Your task to perform on an android device: Do I have any events today? Image 0: 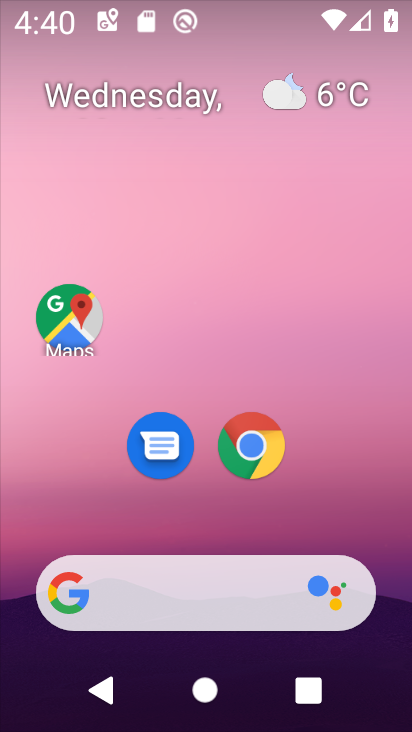
Step 0: drag from (209, 479) to (253, 10)
Your task to perform on an android device: Do I have any events today? Image 1: 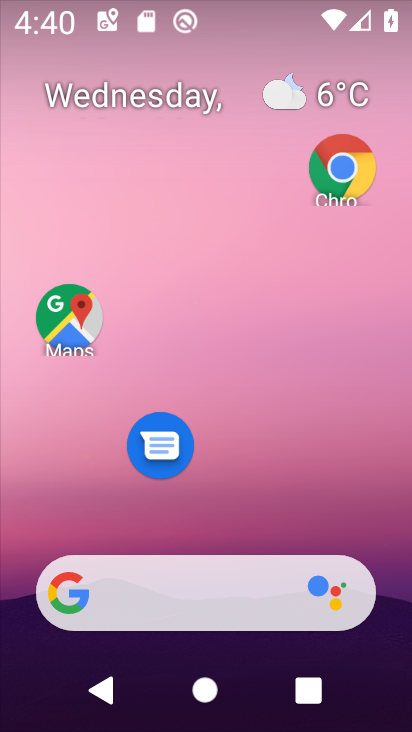
Step 1: drag from (233, 524) to (218, 24)
Your task to perform on an android device: Do I have any events today? Image 2: 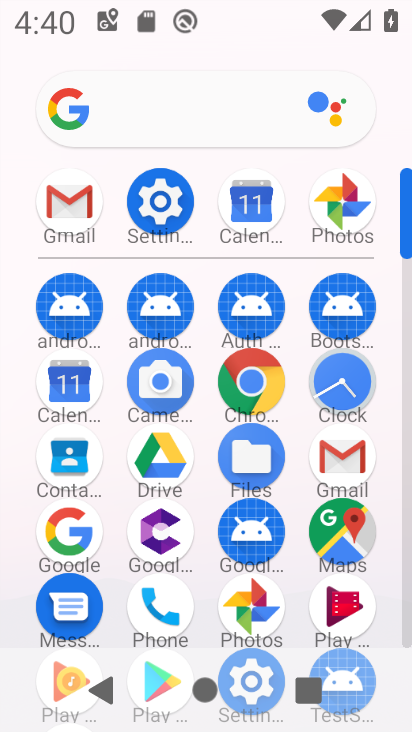
Step 2: click (78, 383)
Your task to perform on an android device: Do I have any events today? Image 3: 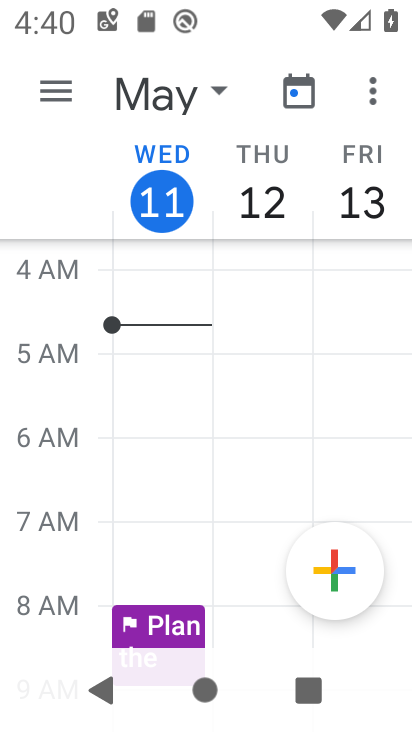
Step 3: click (62, 98)
Your task to perform on an android device: Do I have any events today? Image 4: 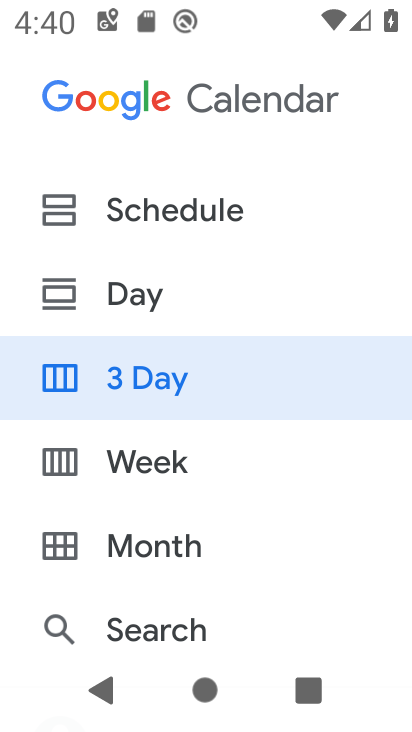
Step 4: drag from (101, 541) to (131, 571)
Your task to perform on an android device: Do I have any events today? Image 5: 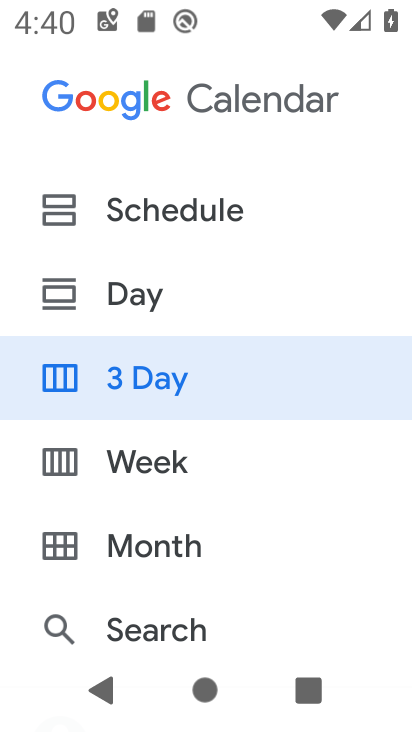
Step 5: click (133, 309)
Your task to perform on an android device: Do I have any events today? Image 6: 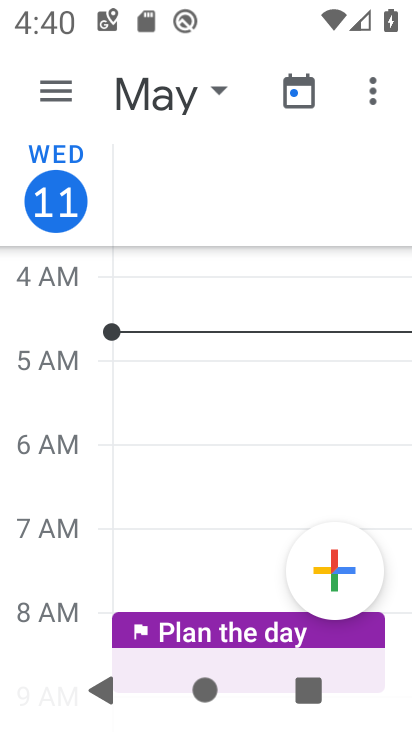
Step 6: task complete